Your task to perform on an android device: Open my contact list Image 0: 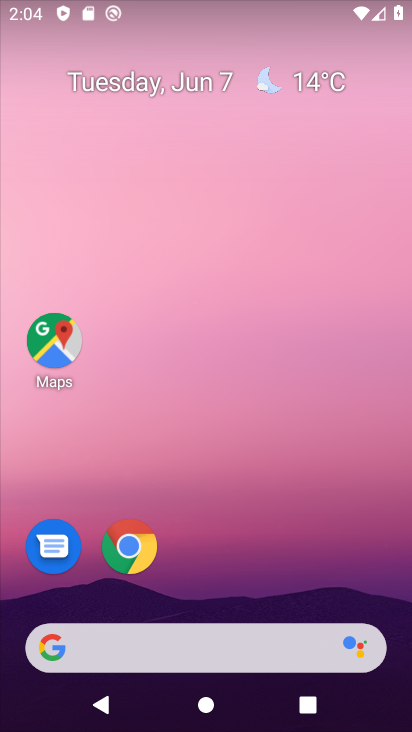
Step 0: drag from (164, 614) to (198, 109)
Your task to perform on an android device: Open my contact list Image 1: 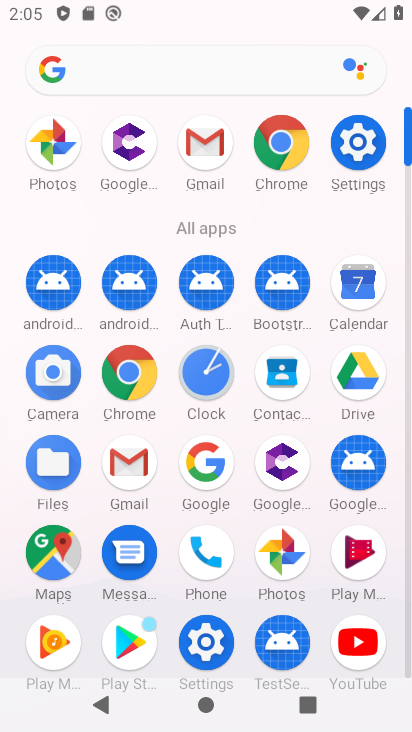
Step 1: click (221, 568)
Your task to perform on an android device: Open my contact list Image 2: 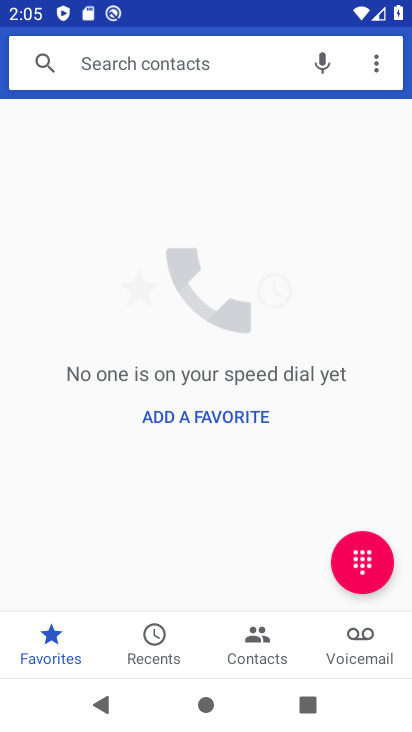
Step 2: click (253, 665)
Your task to perform on an android device: Open my contact list Image 3: 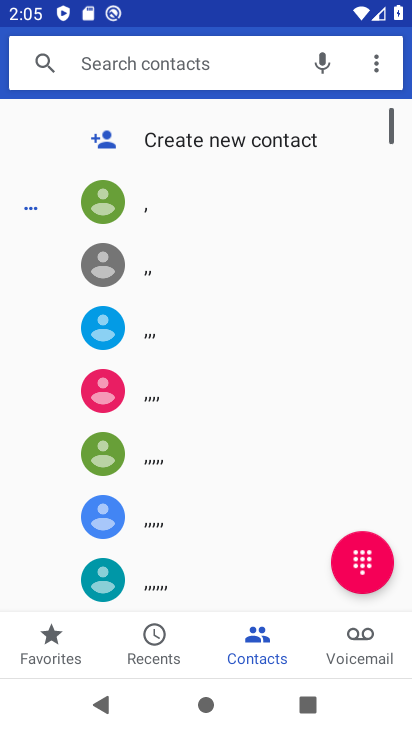
Step 3: task complete